Your task to perform on an android device: Search for Italian restaurants on Maps Image 0: 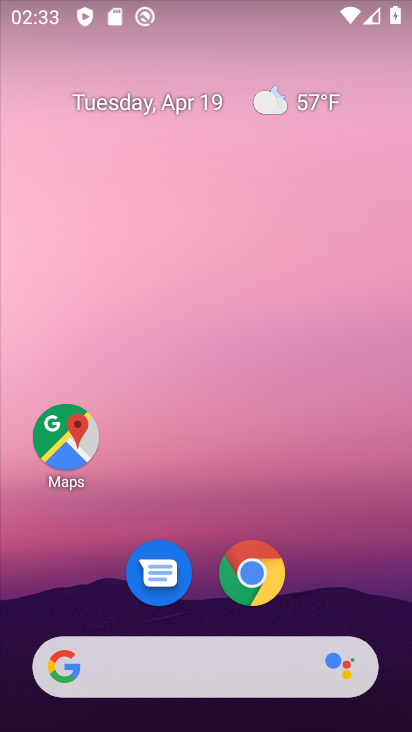
Step 0: click (409, 578)
Your task to perform on an android device: Search for Italian restaurants on Maps Image 1: 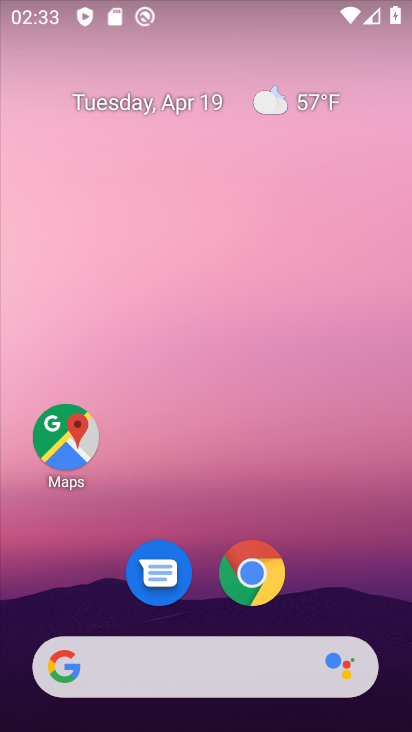
Step 1: click (70, 442)
Your task to perform on an android device: Search for Italian restaurants on Maps Image 2: 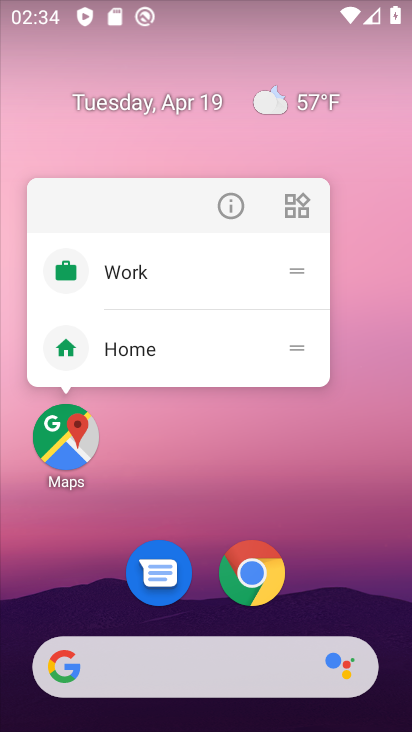
Step 2: click (67, 437)
Your task to perform on an android device: Search for Italian restaurants on Maps Image 3: 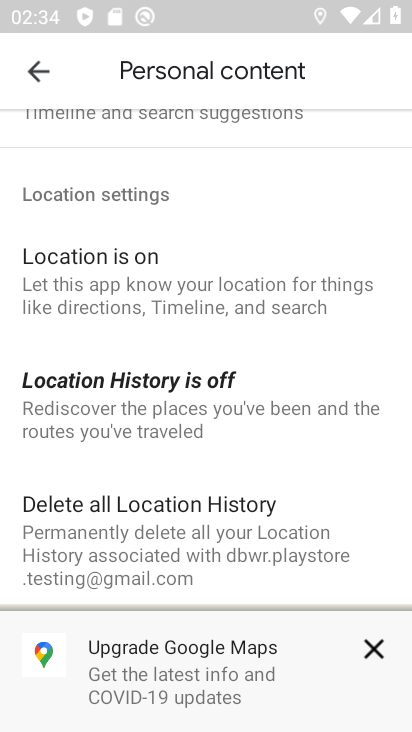
Step 3: click (39, 70)
Your task to perform on an android device: Search for Italian restaurants on Maps Image 4: 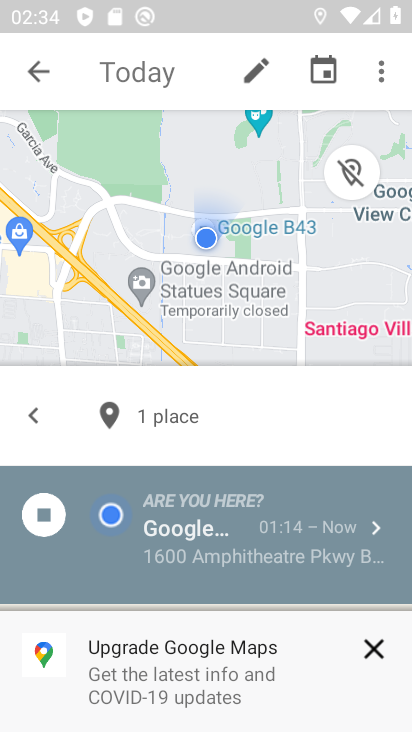
Step 4: click (39, 70)
Your task to perform on an android device: Search for Italian restaurants on Maps Image 5: 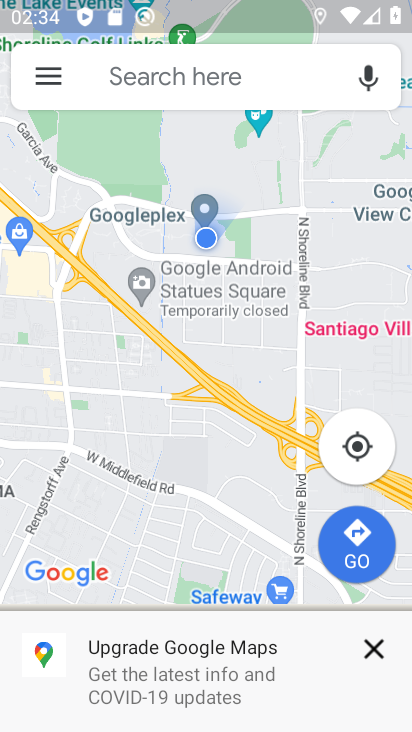
Step 5: click (116, 72)
Your task to perform on an android device: Search for Italian restaurants on Maps Image 6: 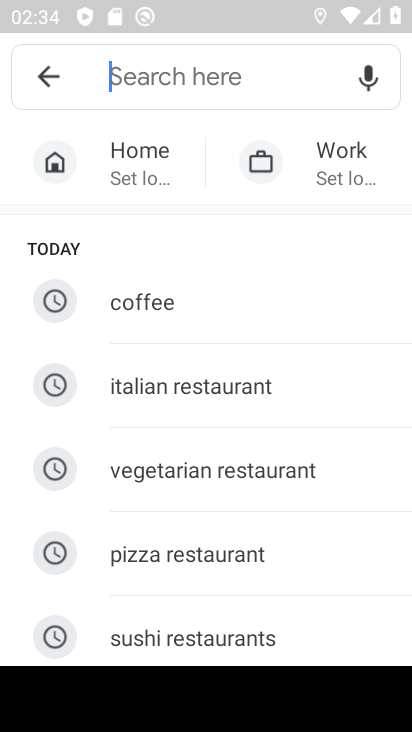
Step 6: type "italian restaurant"
Your task to perform on an android device: Search for Italian restaurants on Maps Image 7: 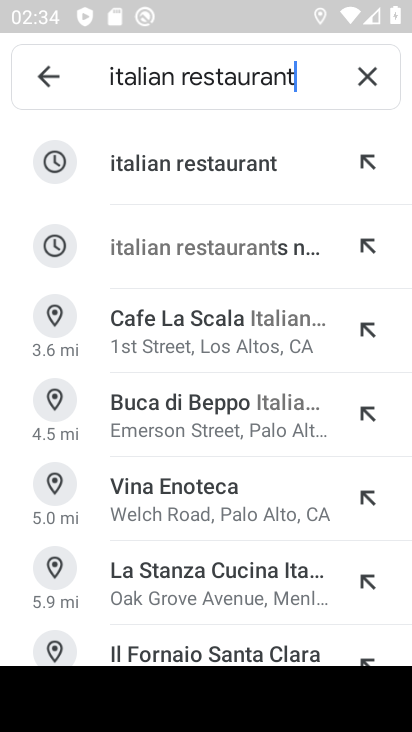
Step 7: click (146, 169)
Your task to perform on an android device: Search for Italian restaurants on Maps Image 8: 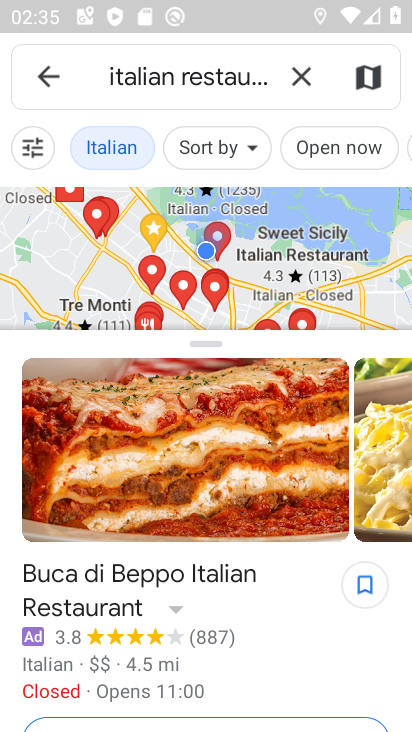
Step 8: task complete